Your task to perform on an android device: open app "TextNow: Call + Text Unlimited" (install if not already installed) and go to login screen Image 0: 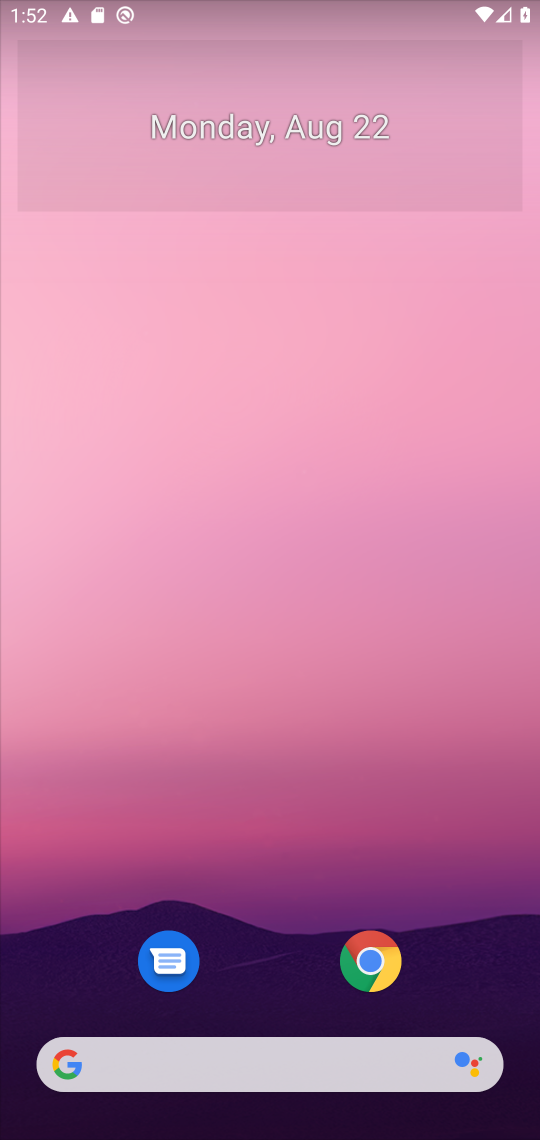
Step 0: press home button
Your task to perform on an android device: open app "TextNow: Call + Text Unlimited" (install if not already installed) and go to login screen Image 1: 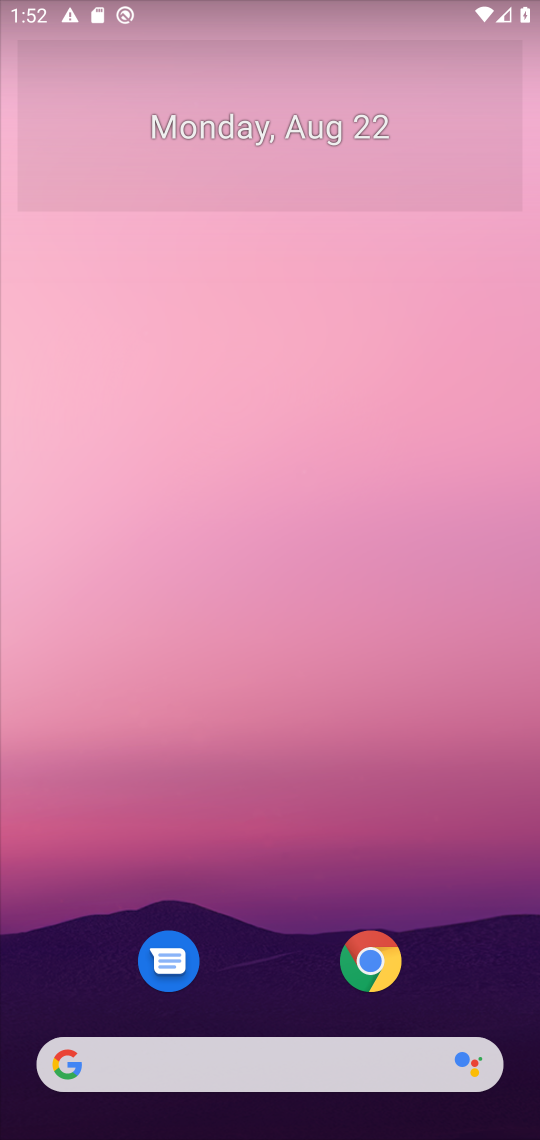
Step 1: drag from (475, 958) to (437, 53)
Your task to perform on an android device: open app "TextNow: Call + Text Unlimited" (install if not already installed) and go to login screen Image 2: 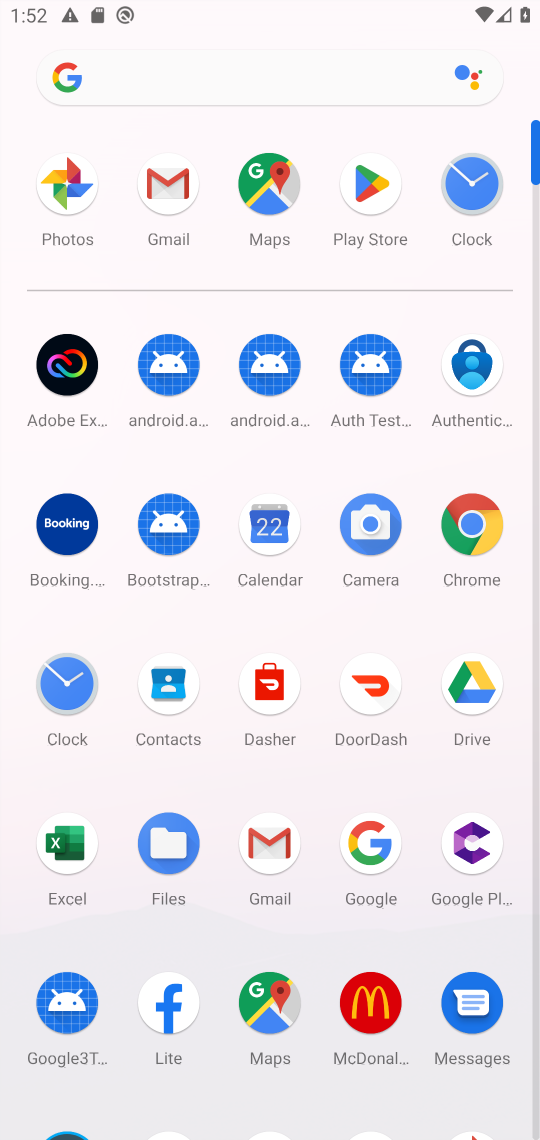
Step 2: click (375, 185)
Your task to perform on an android device: open app "TextNow: Call + Text Unlimited" (install if not already installed) and go to login screen Image 3: 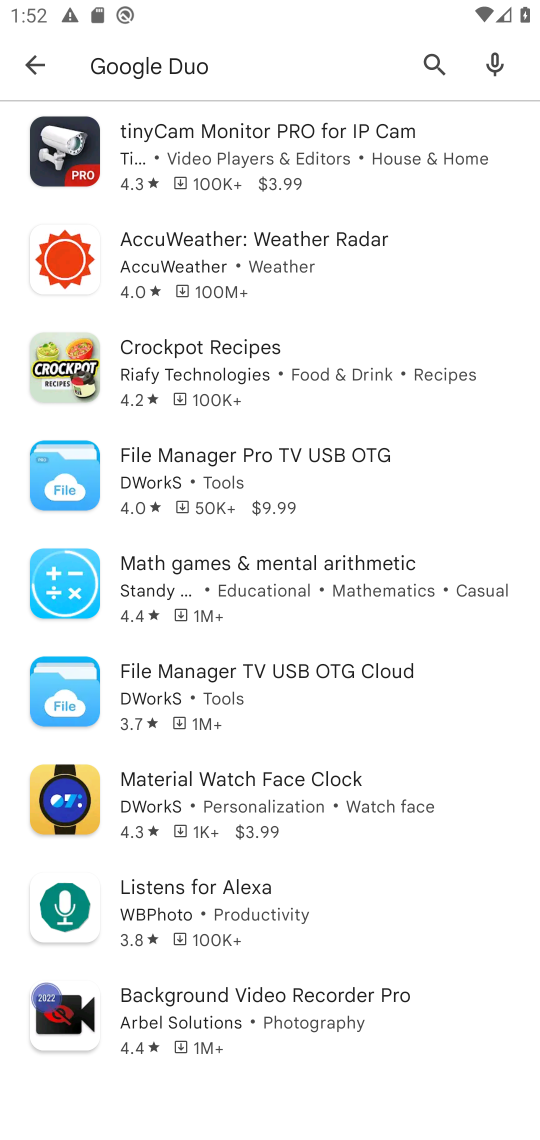
Step 3: press back button
Your task to perform on an android device: open app "TextNow: Call + Text Unlimited" (install if not already installed) and go to login screen Image 4: 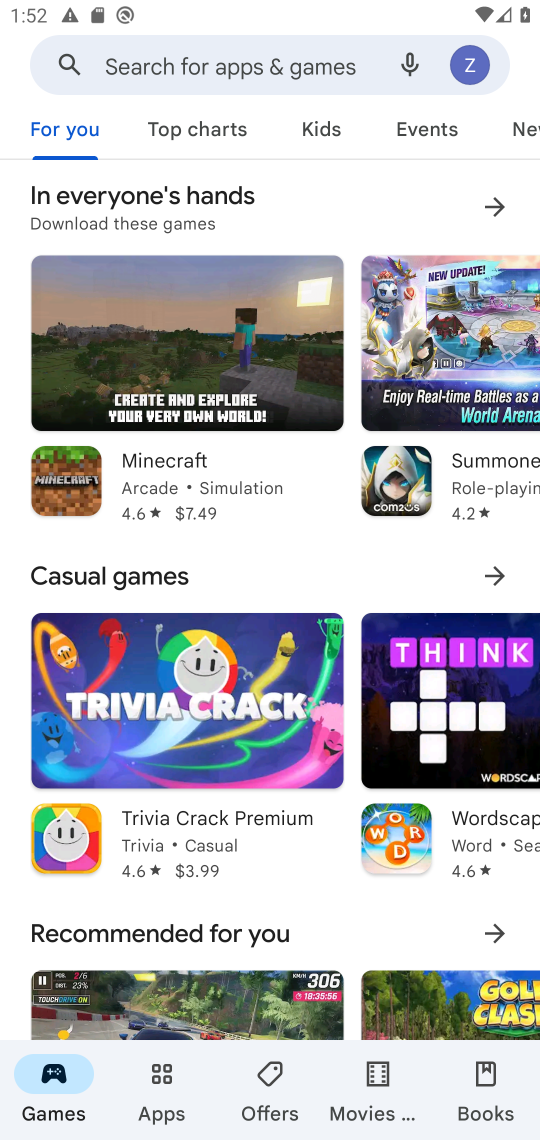
Step 4: click (327, 61)
Your task to perform on an android device: open app "TextNow: Call + Text Unlimited" (install if not already installed) and go to login screen Image 5: 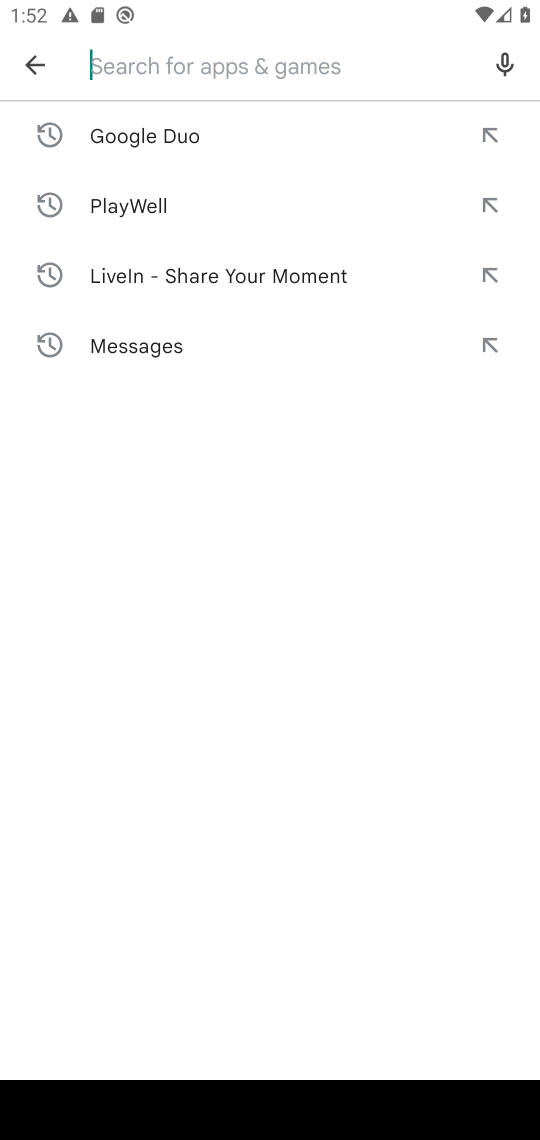
Step 5: type "TextNow: Call + Text Unlimited"
Your task to perform on an android device: open app "TextNow: Call + Text Unlimited" (install if not already installed) and go to login screen Image 6: 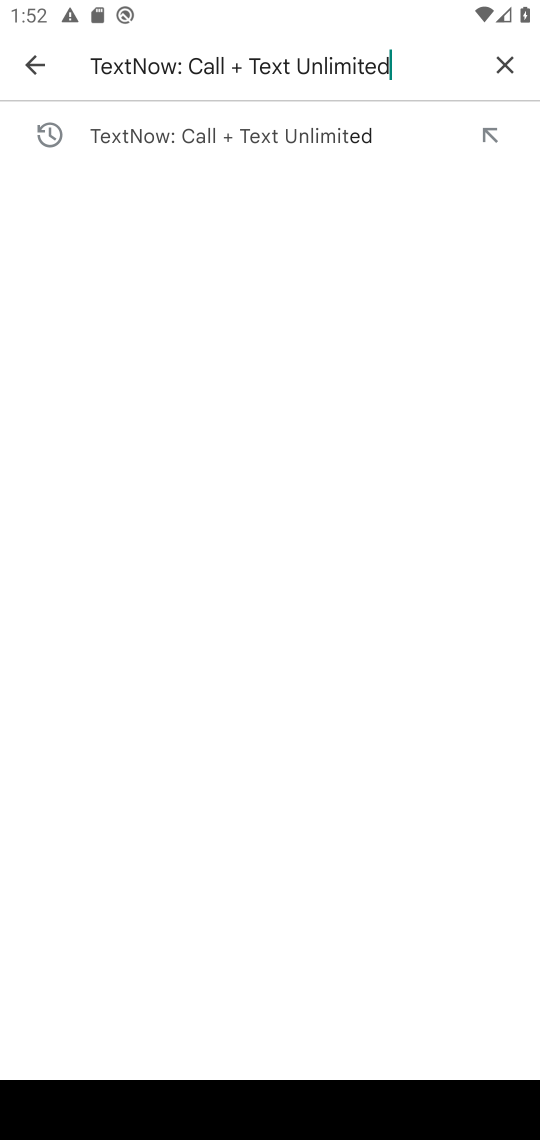
Step 6: press enter
Your task to perform on an android device: open app "TextNow: Call + Text Unlimited" (install if not already installed) and go to login screen Image 7: 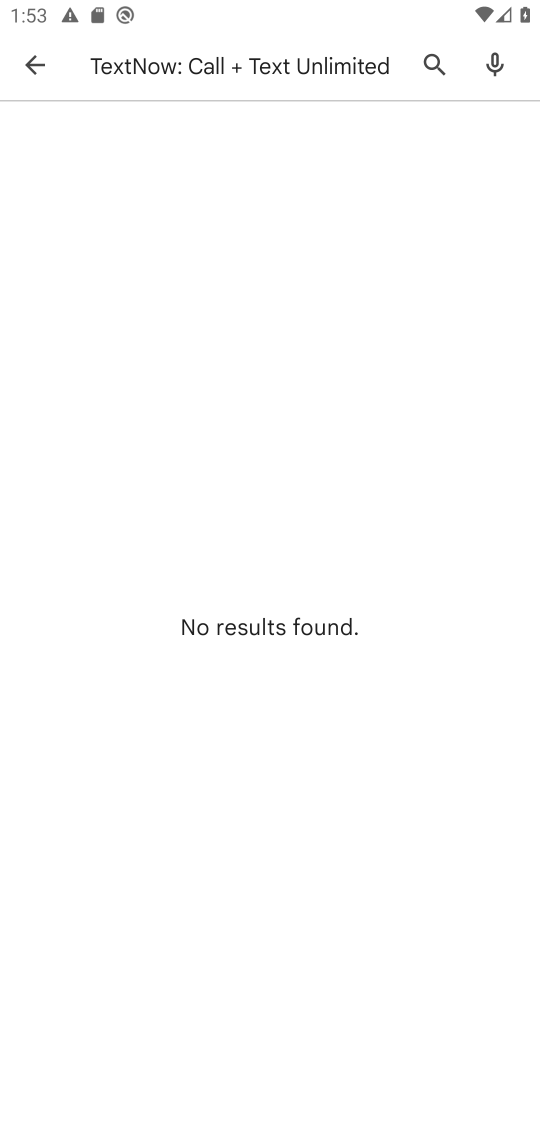
Step 7: task complete